Your task to perform on an android device: Is it going to rain this weekend? Image 0: 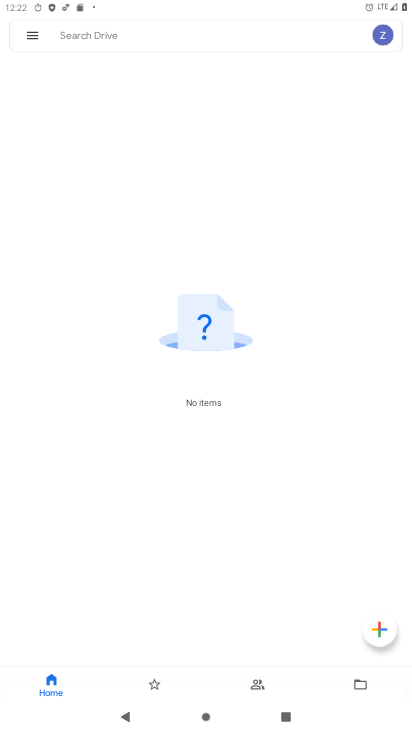
Step 0: press home button
Your task to perform on an android device: Is it going to rain this weekend? Image 1: 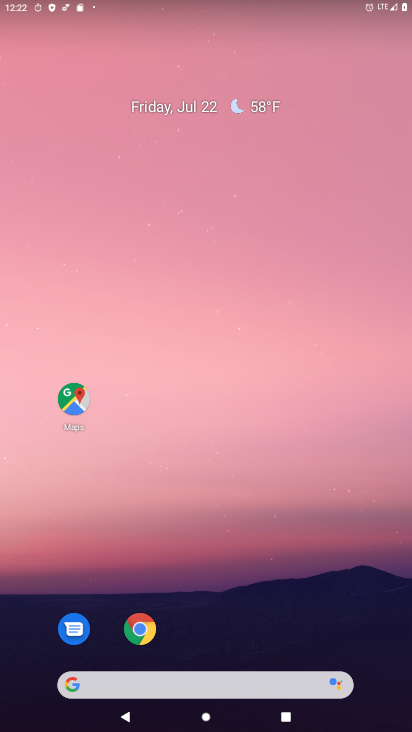
Step 1: click (229, 686)
Your task to perform on an android device: Is it going to rain this weekend? Image 2: 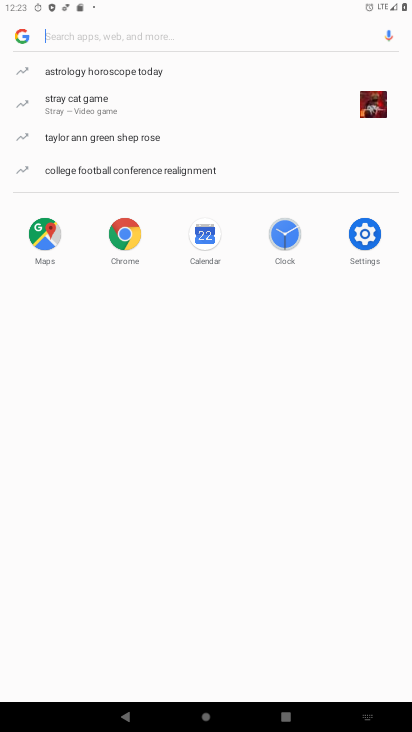
Step 2: type "weather"
Your task to perform on an android device: Is it going to rain this weekend? Image 3: 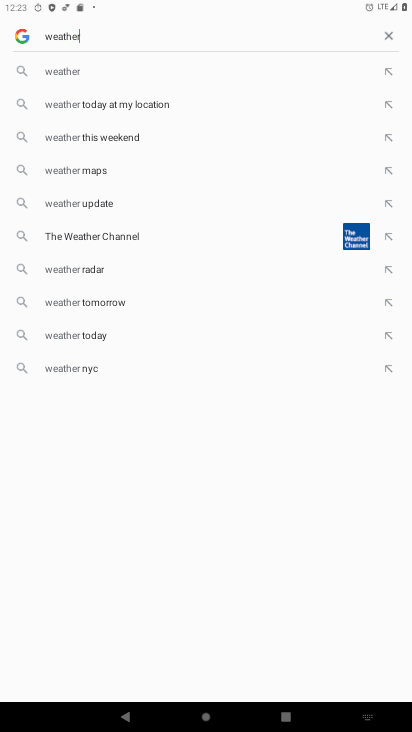
Step 3: click (142, 76)
Your task to perform on an android device: Is it going to rain this weekend? Image 4: 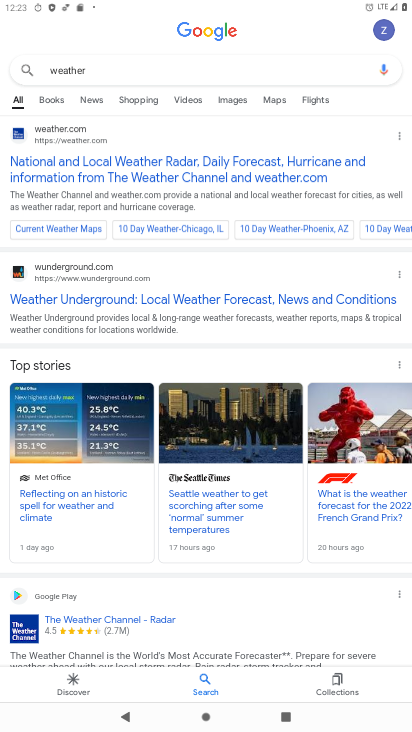
Step 4: task complete